Your task to perform on an android device: Go to settings Image 0: 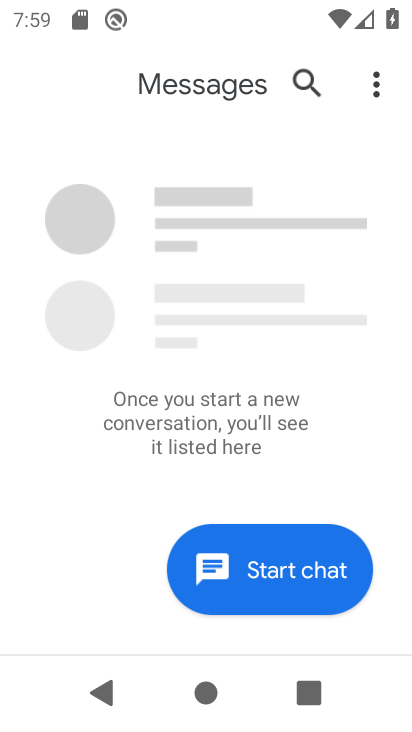
Step 0: click (338, 535)
Your task to perform on an android device: Go to settings Image 1: 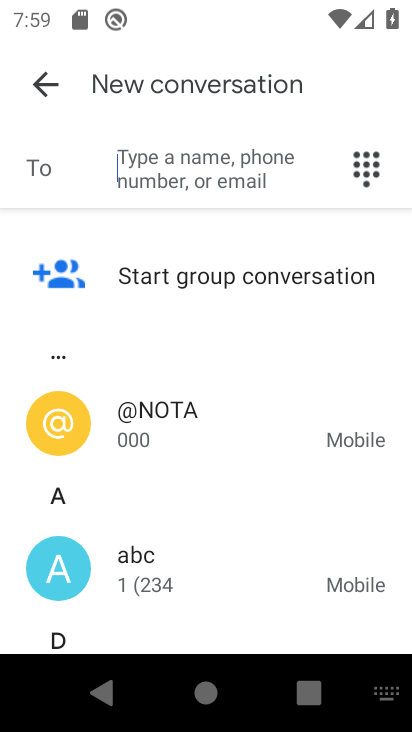
Step 1: press home button
Your task to perform on an android device: Go to settings Image 2: 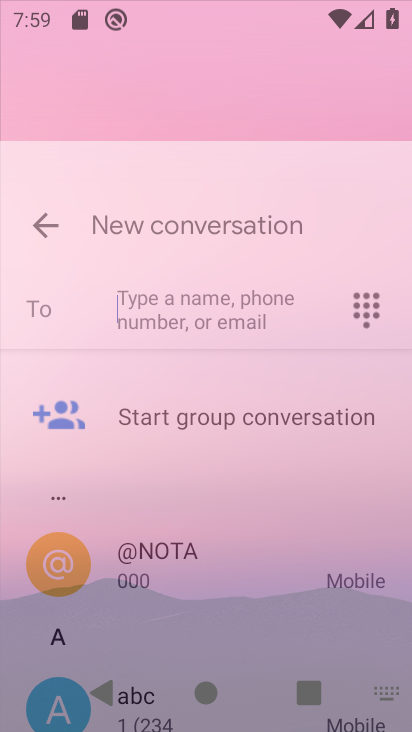
Step 2: press home button
Your task to perform on an android device: Go to settings Image 3: 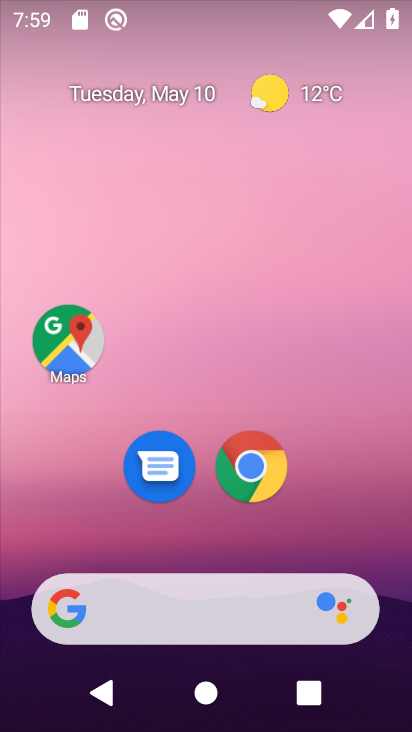
Step 3: drag from (204, 545) to (327, 77)
Your task to perform on an android device: Go to settings Image 4: 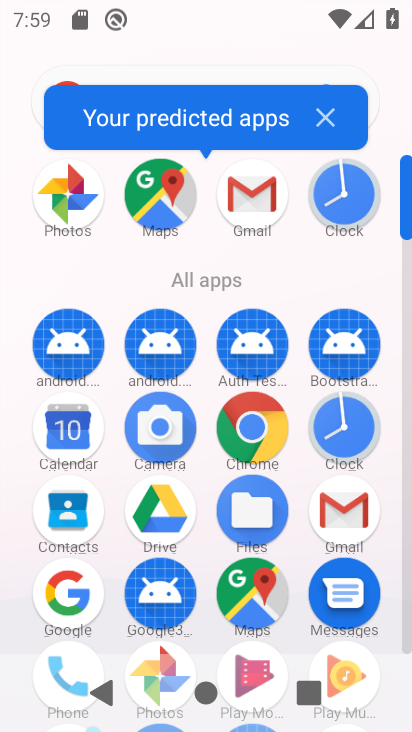
Step 4: drag from (206, 468) to (220, 0)
Your task to perform on an android device: Go to settings Image 5: 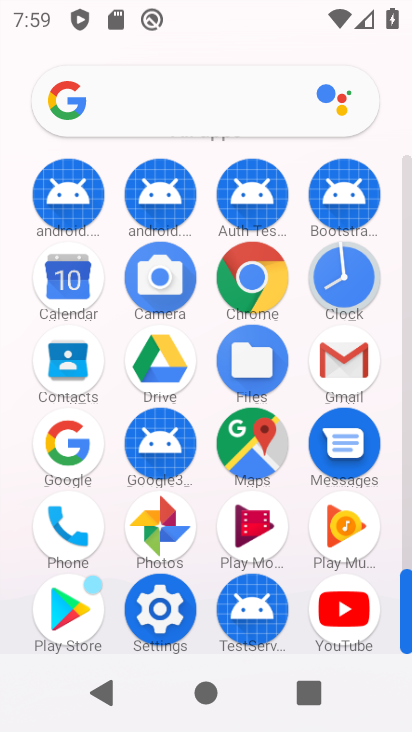
Step 5: click (160, 589)
Your task to perform on an android device: Go to settings Image 6: 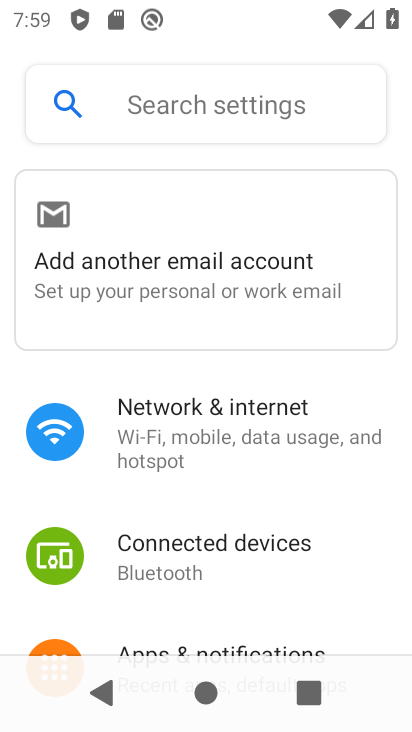
Step 6: task complete